Your task to perform on an android device: Turn on the flashlight Image 0: 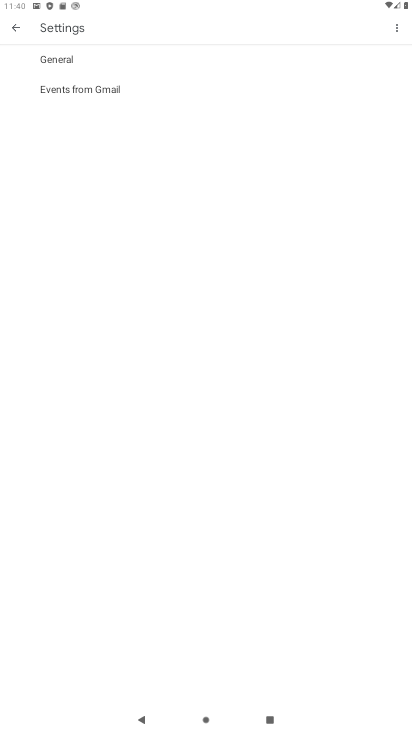
Step 0: press home button
Your task to perform on an android device: Turn on the flashlight Image 1: 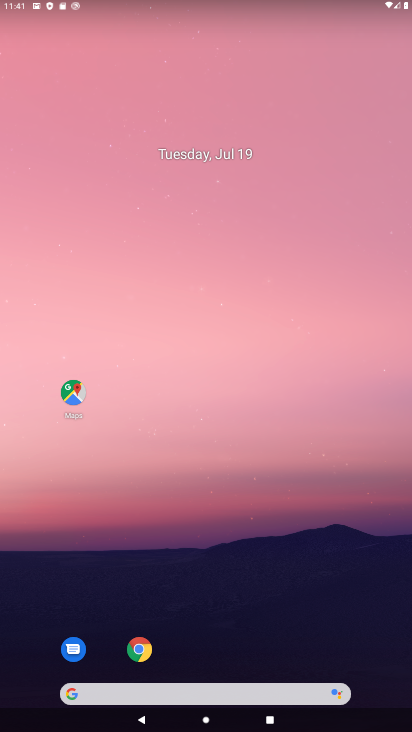
Step 1: drag from (195, 648) to (160, 41)
Your task to perform on an android device: Turn on the flashlight Image 2: 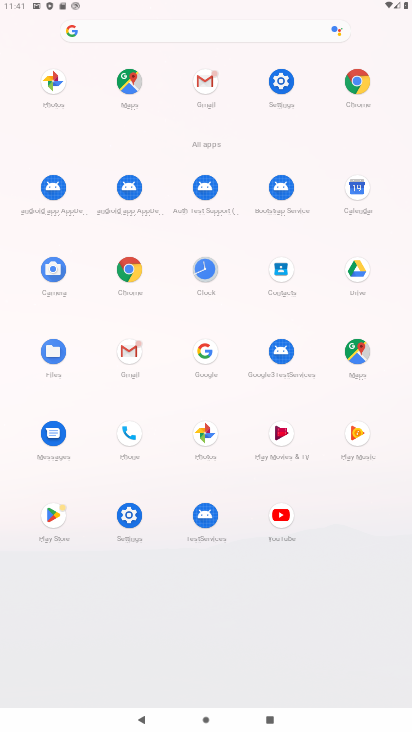
Step 2: click (287, 91)
Your task to perform on an android device: Turn on the flashlight Image 3: 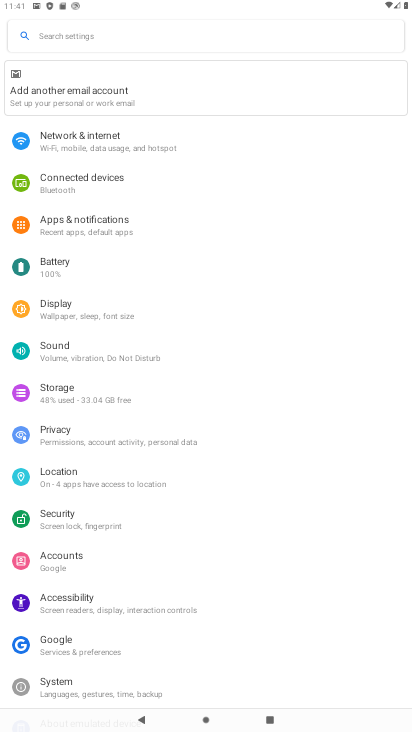
Step 3: task complete